Your task to perform on an android device: Find coffee shops on Maps Image 0: 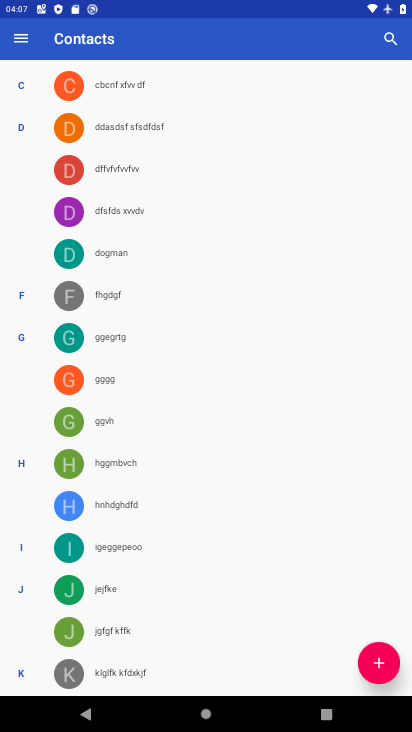
Step 0: task complete